Your task to perform on an android device: turn on improve location accuracy Image 0: 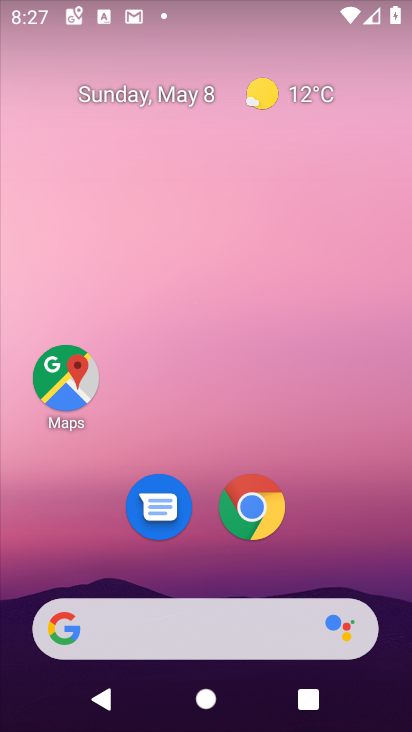
Step 0: drag from (248, 617) to (310, 88)
Your task to perform on an android device: turn on improve location accuracy Image 1: 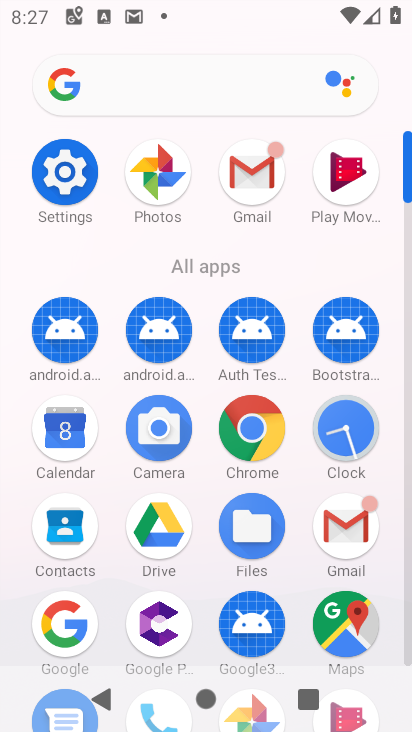
Step 1: click (57, 180)
Your task to perform on an android device: turn on improve location accuracy Image 2: 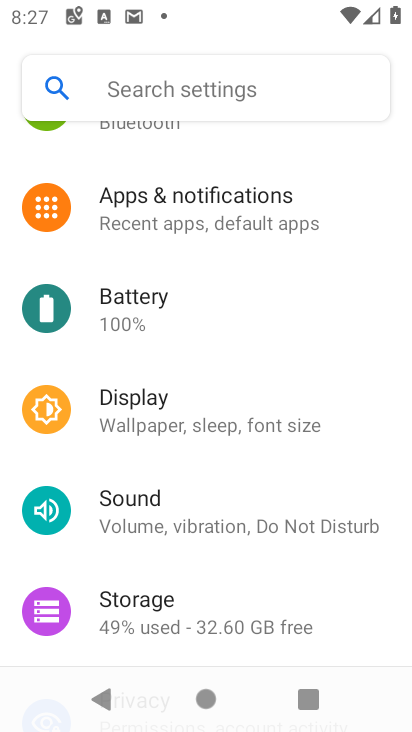
Step 2: drag from (211, 603) to (294, 144)
Your task to perform on an android device: turn on improve location accuracy Image 3: 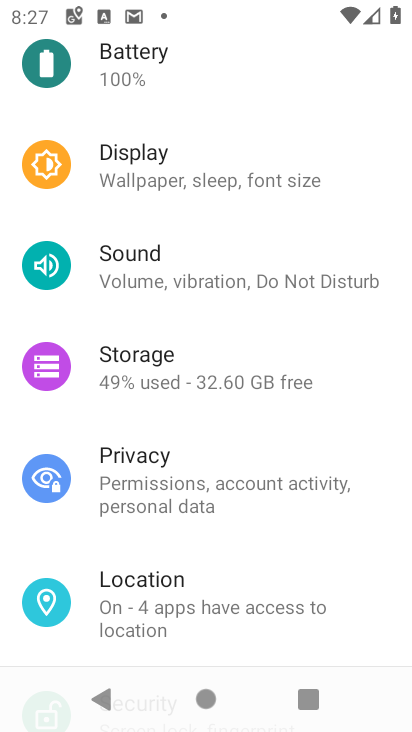
Step 3: click (136, 623)
Your task to perform on an android device: turn on improve location accuracy Image 4: 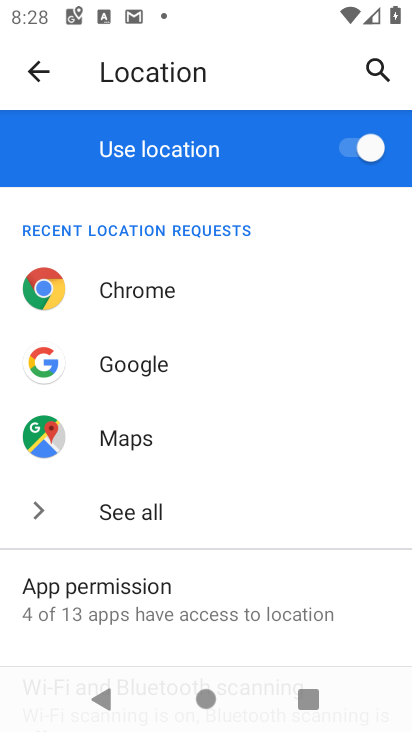
Step 4: drag from (298, 579) to (207, 36)
Your task to perform on an android device: turn on improve location accuracy Image 5: 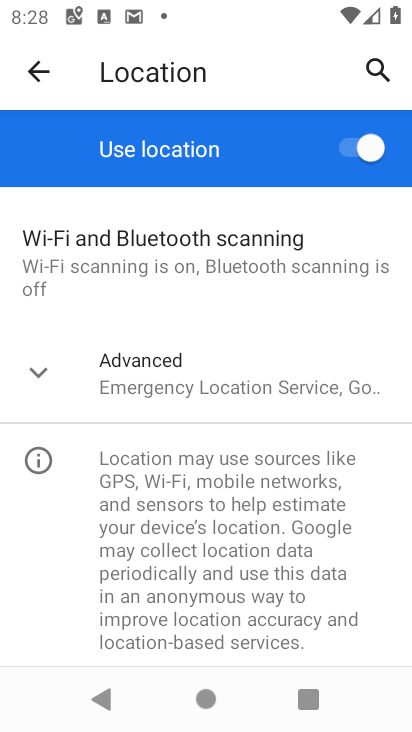
Step 5: click (151, 378)
Your task to perform on an android device: turn on improve location accuracy Image 6: 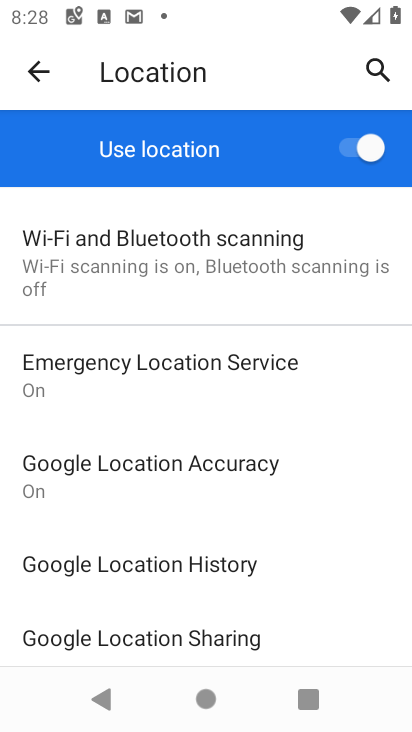
Step 6: click (142, 471)
Your task to perform on an android device: turn on improve location accuracy Image 7: 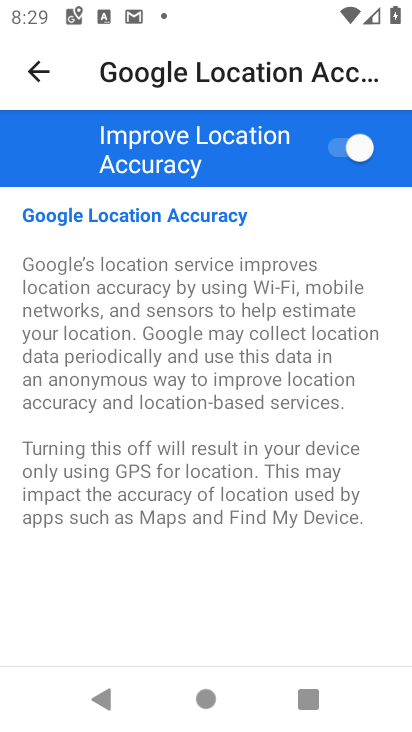
Step 7: task complete